Your task to perform on an android device: delete the emails in spam in the gmail app Image 0: 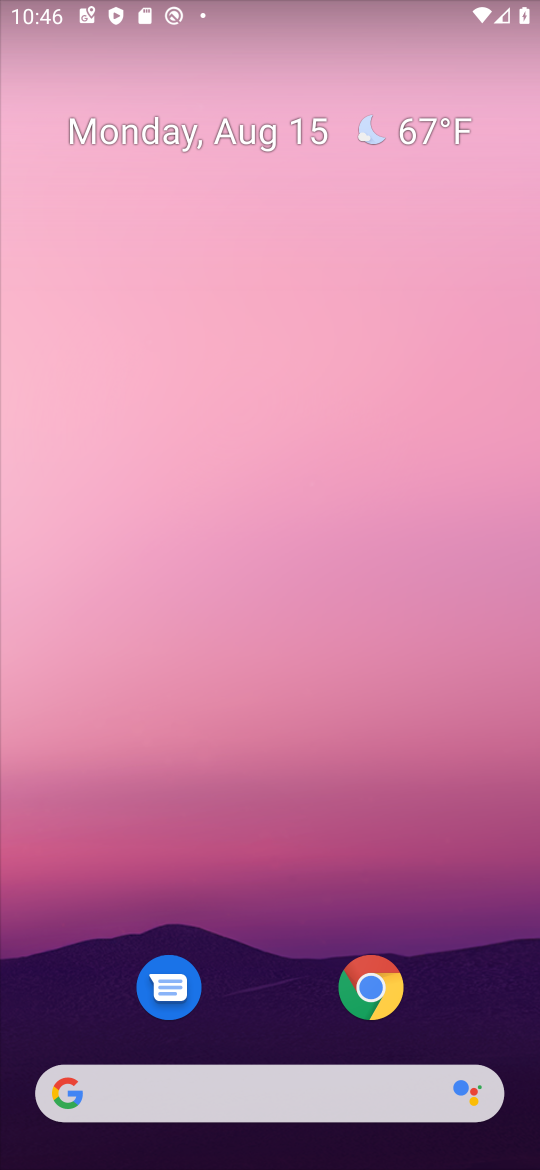
Step 0: drag from (297, 1035) to (226, 182)
Your task to perform on an android device: delete the emails in spam in the gmail app Image 1: 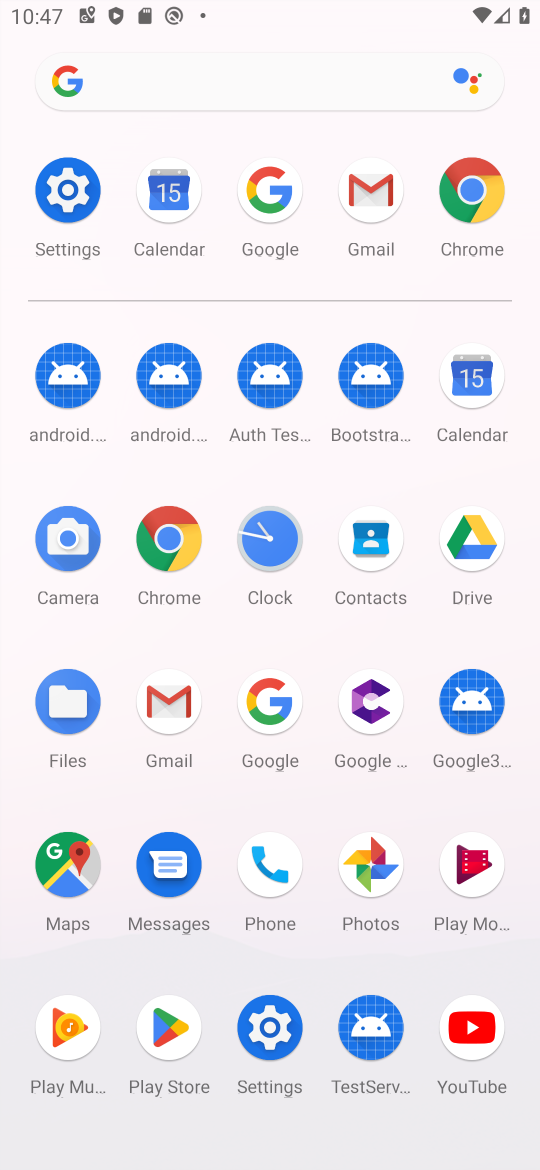
Step 1: click (169, 713)
Your task to perform on an android device: delete the emails in spam in the gmail app Image 2: 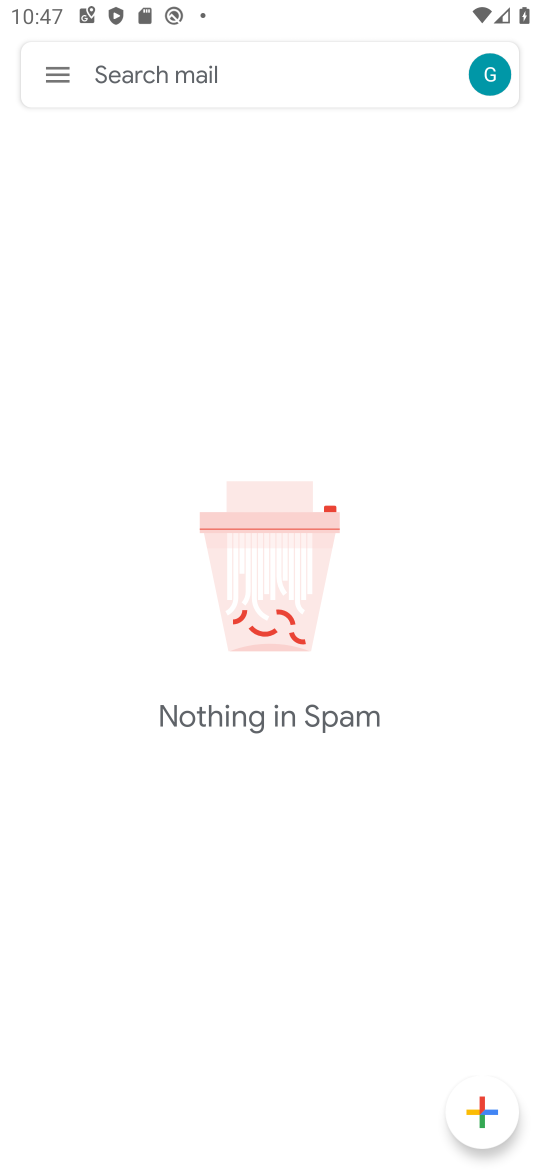
Step 2: task complete